Your task to perform on an android device: Open Yahoo.com Image 0: 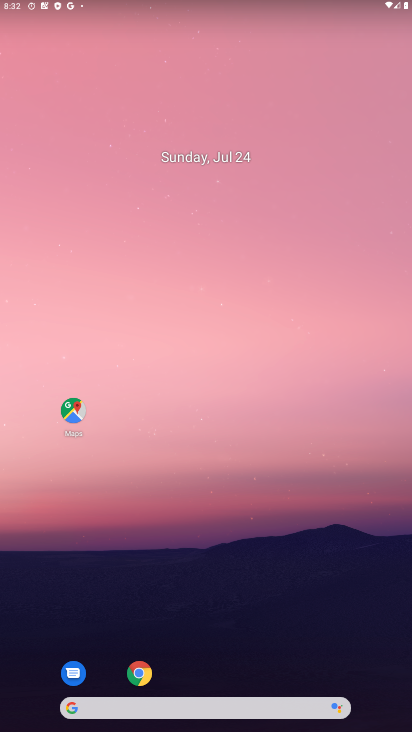
Step 0: click (144, 700)
Your task to perform on an android device: Open Yahoo.com Image 1: 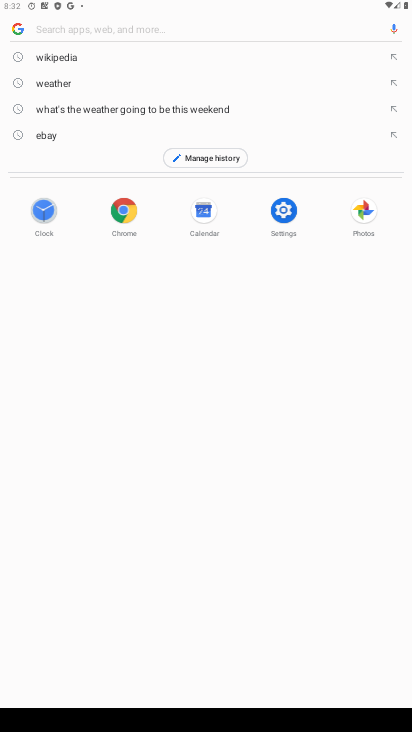
Step 1: type "Yahoo.com"
Your task to perform on an android device: Open Yahoo.com Image 2: 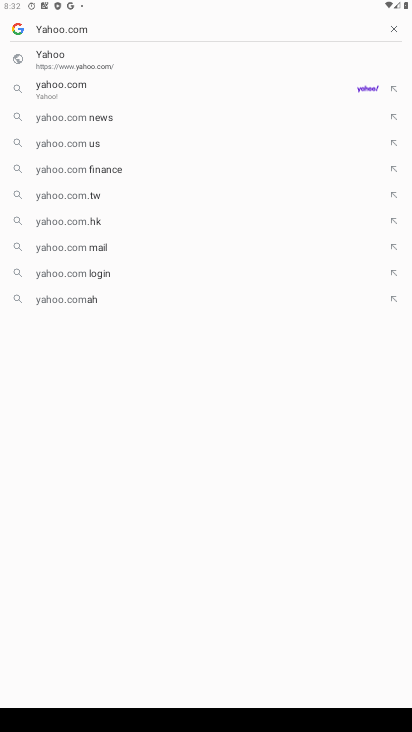
Step 2: click (40, 84)
Your task to perform on an android device: Open Yahoo.com Image 3: 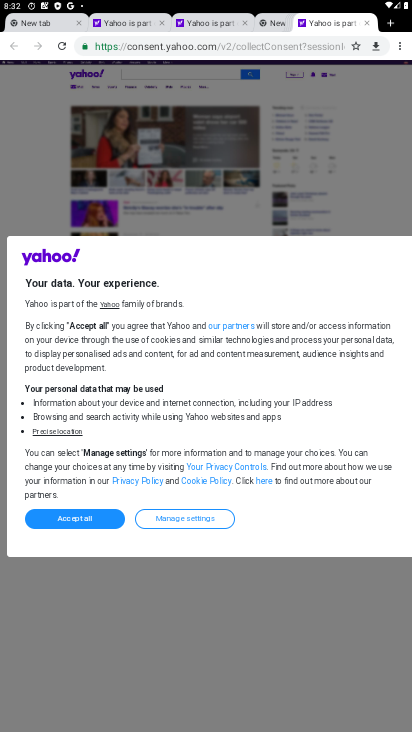
Step 3: task complete